Your task to perform on an android device: Open eBay Image 0: 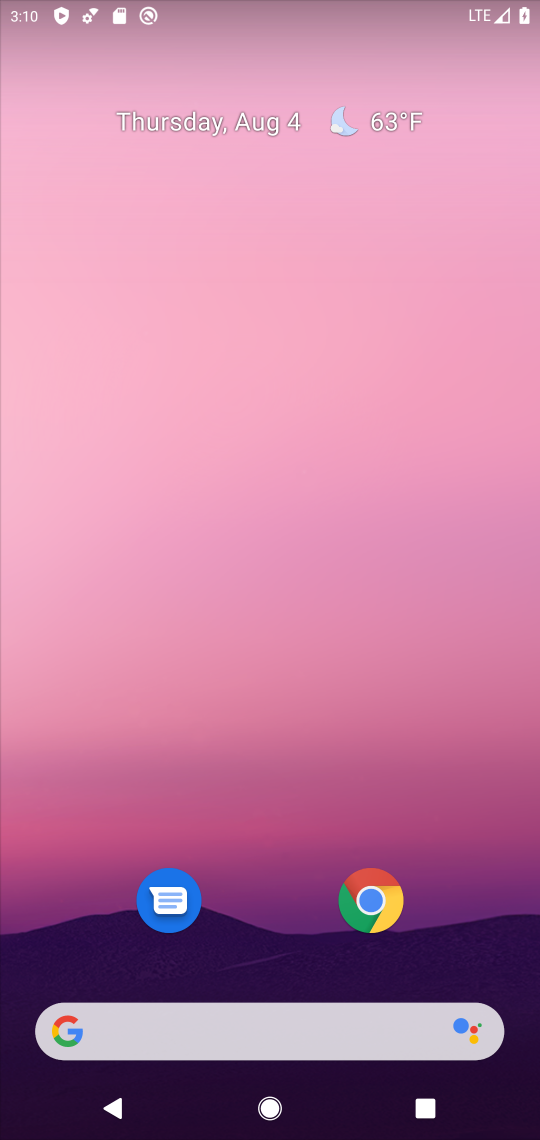
Step 0: click (377, 888)
Your task to perform on an android device: Open eBay Image 1: 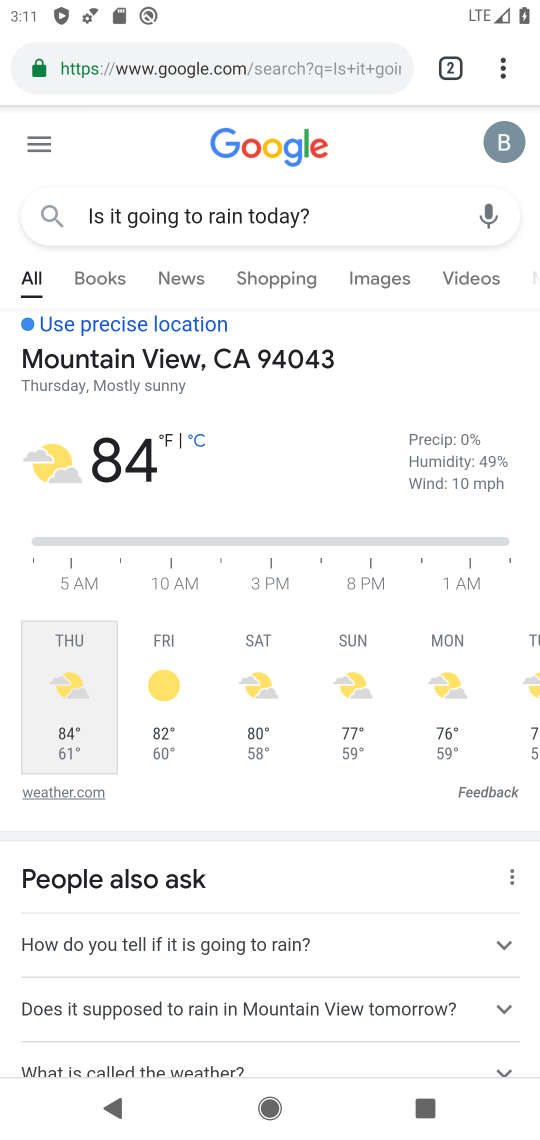
Step 1: click (452, 62)
Your task to perform on an android device: Open eBay Image 2: 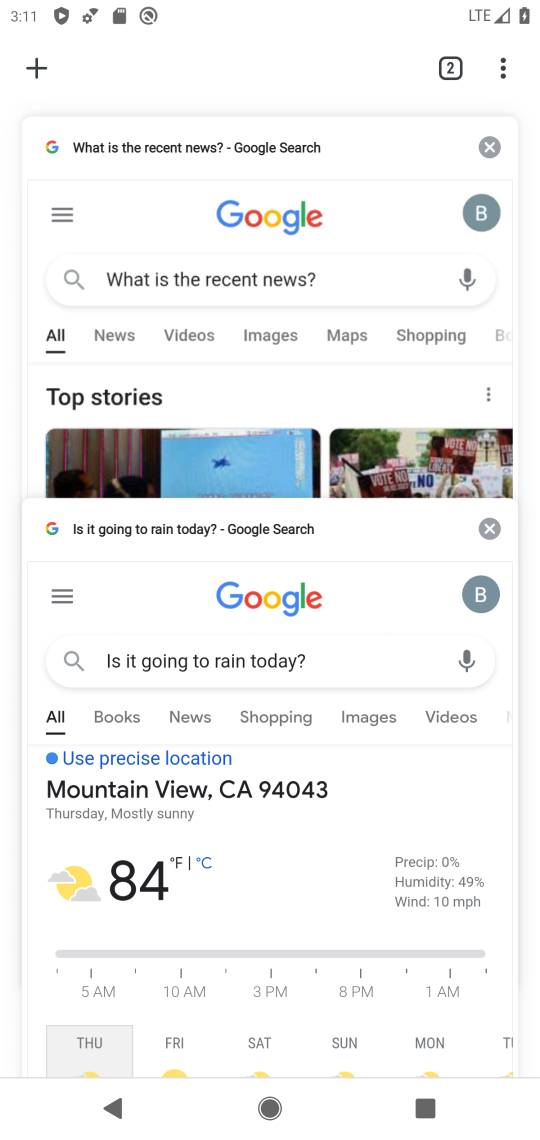
Step 2: click (43, 62)
Your task to perform on an android device: Open eBay Image 3: 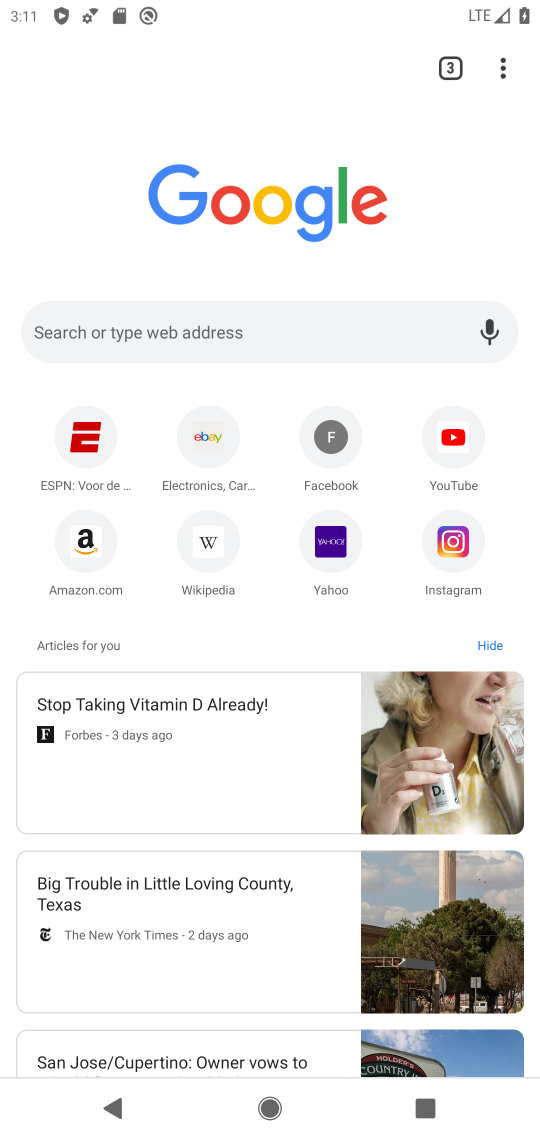
Step 3: click (288, 327)
Your task to perform on an android device: Open eBay Image 4: 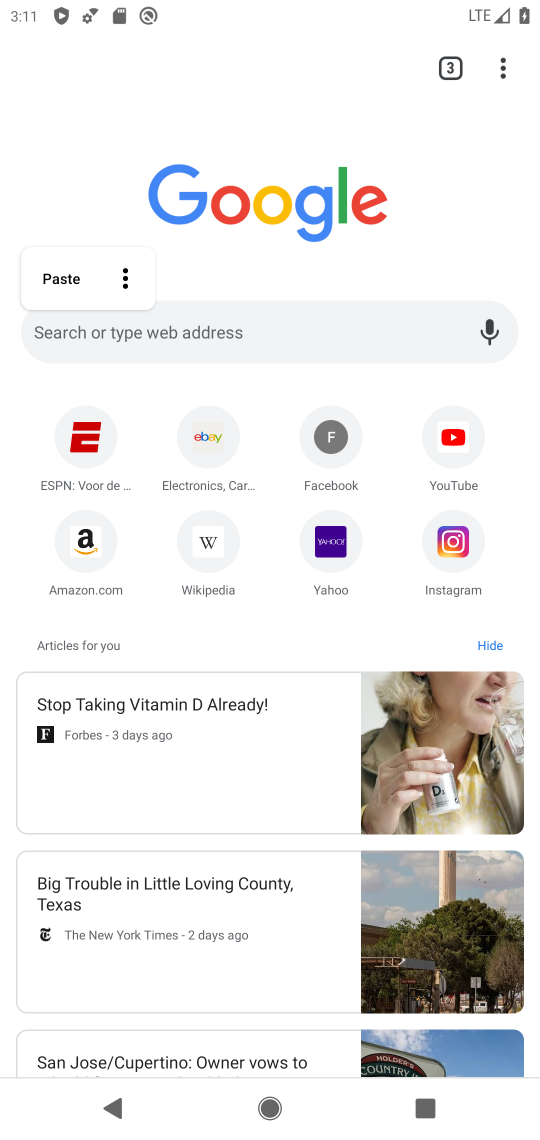
Step 4: type "eBay"
Your task to perform on an android device: Open eBay Image 5: 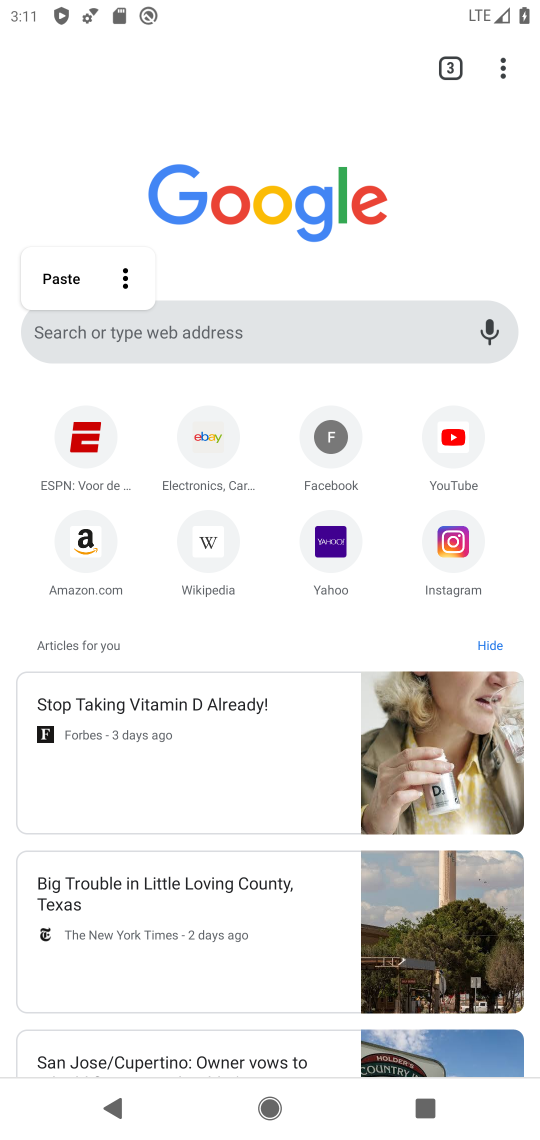
Step 5: click (83, 330)
Your task to perform on an android device: Open eBay Image 6: 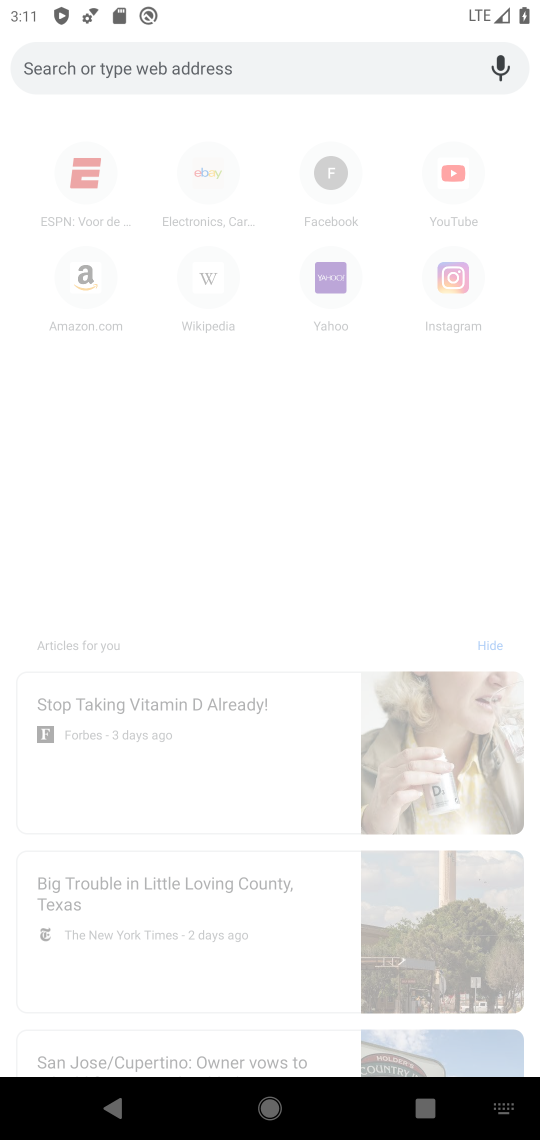
Step 6: type "ebay"
Your task to perform on an android device: Open eBay Image 7: 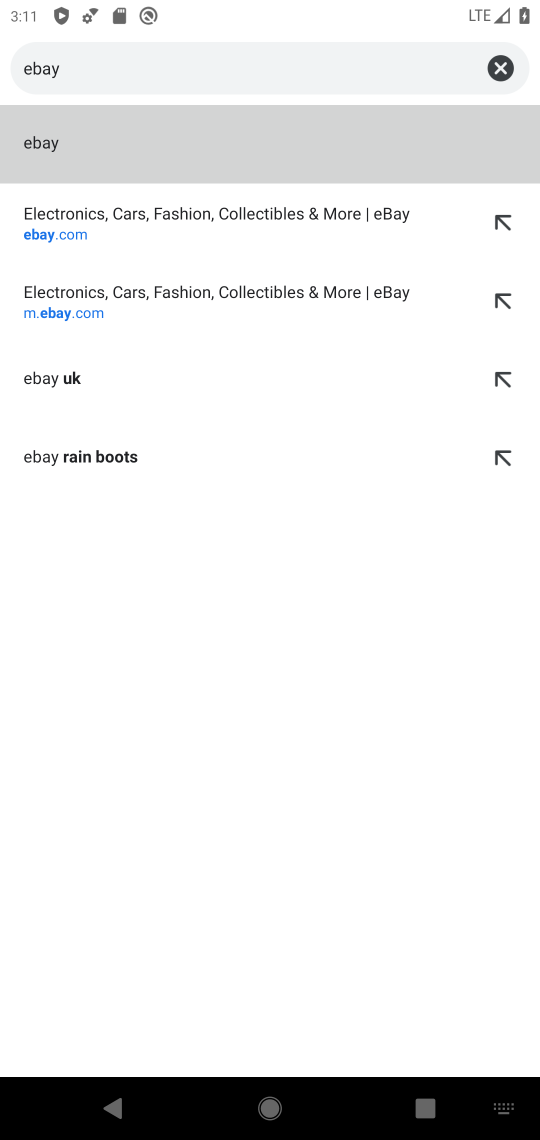
Step 7: click (125, 157)
Your task to perform on an android device: Open eBay Image 8: 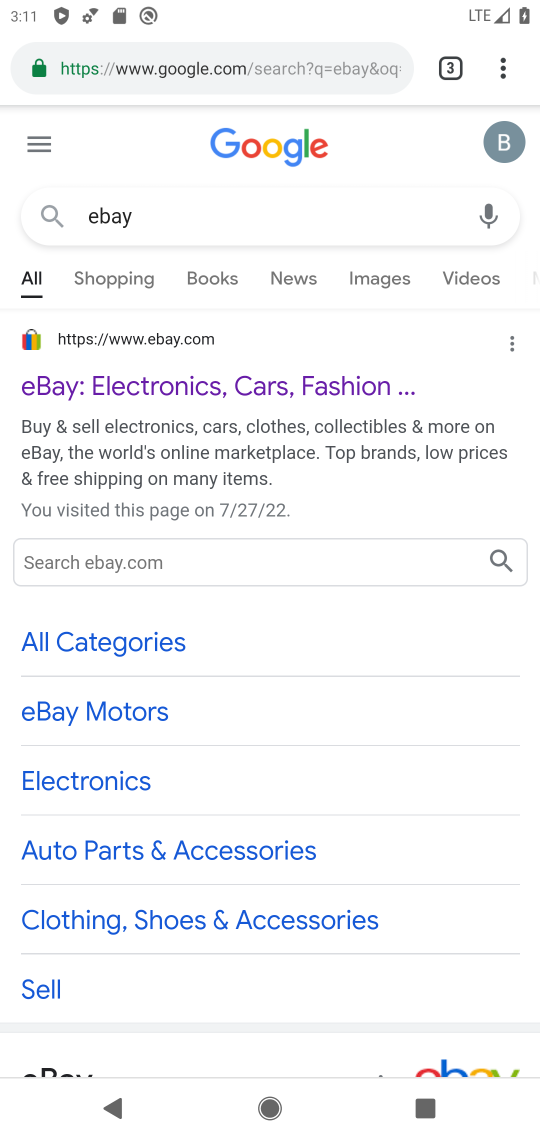
Step 8: click (190, 383)
Your task to perform on an android device: Open eBay Image 9: 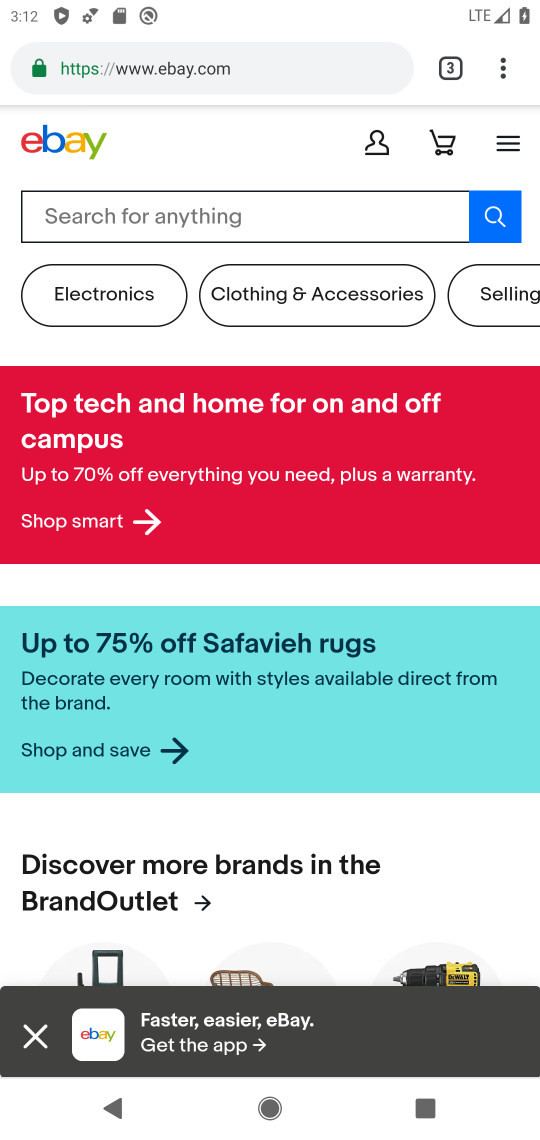
Step 9: task complete